Your task to perform on an android device: Open settings on Google Maps Image 0: 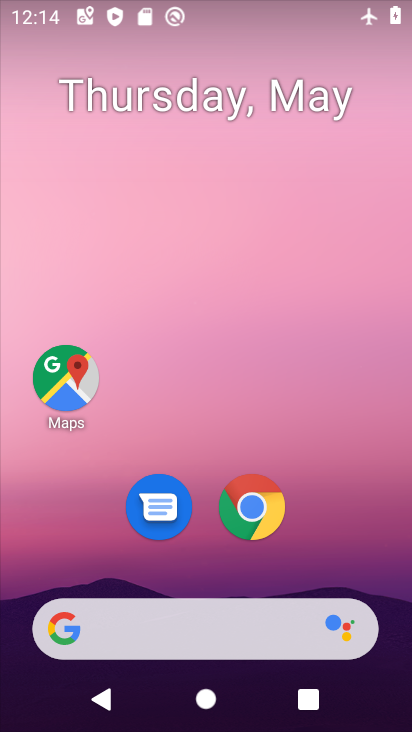
Step 0: click (62, 375)
Your task to perform on an android device: Open settings on Google Maps Image 1: 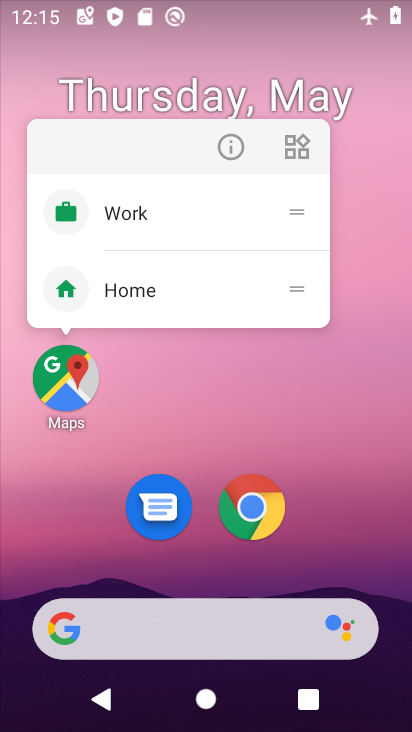
Step 1: click (64, 382)
Your task to perform on an android device: Open settings on Google Maps Image 2: 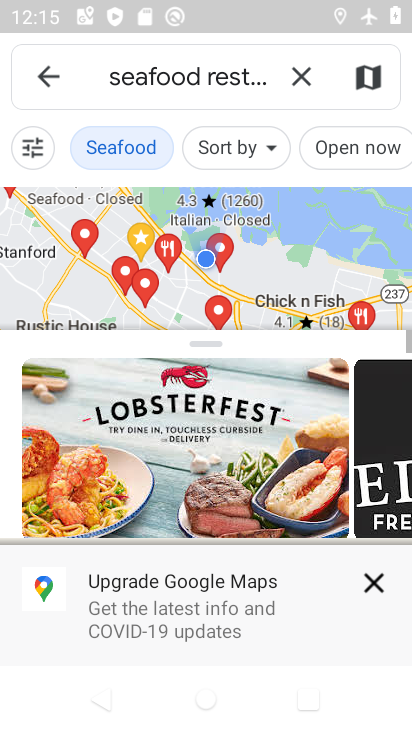
Step 2: click (303, 84)
Your task to perform on an android device: Open settings on Google Maps Image 3: 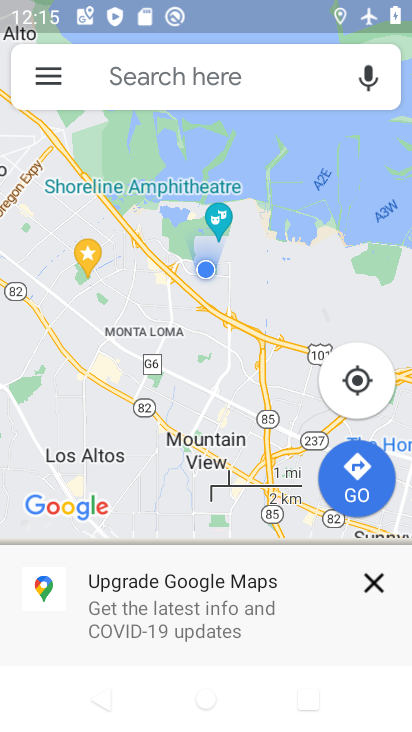
Step 3: click (56, 70)
Your task to perform on an android device: Open settings on Google Maps Image 4: 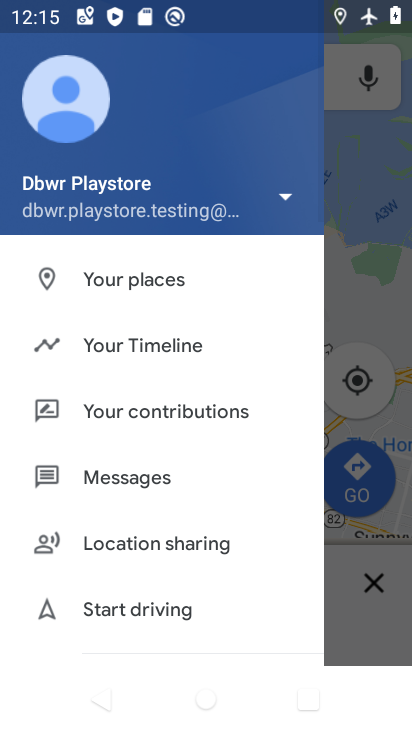
Step 4: drag from (142, 620) to (170, 243)
Your task to perform on an android device: Open settings on Google Maps Image 5: 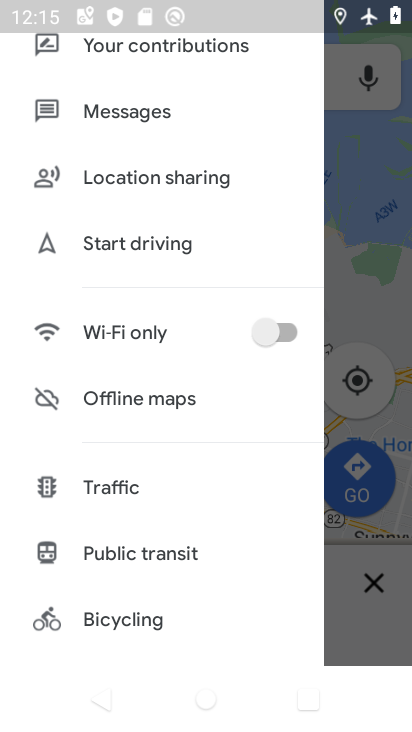
Step 5: drag from (147, 635) to (163, 300)
Your task to perform on an android device: Open settings on Google Maps Image 6: 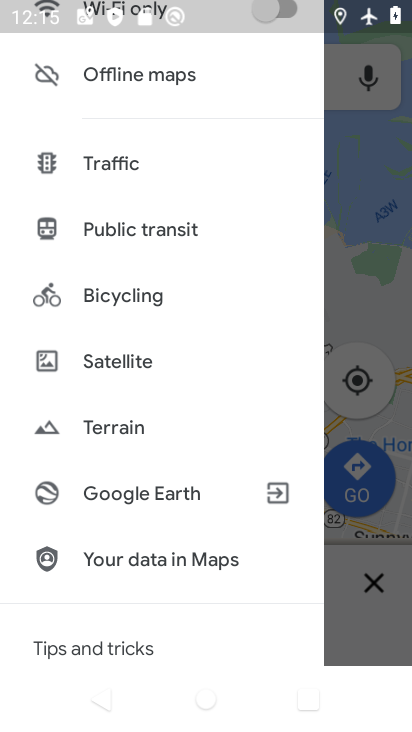
Step 6: drag from (92, 649) to (108, 273)
Your task to perform on an android device: Open settings on Google Maps Image 7: 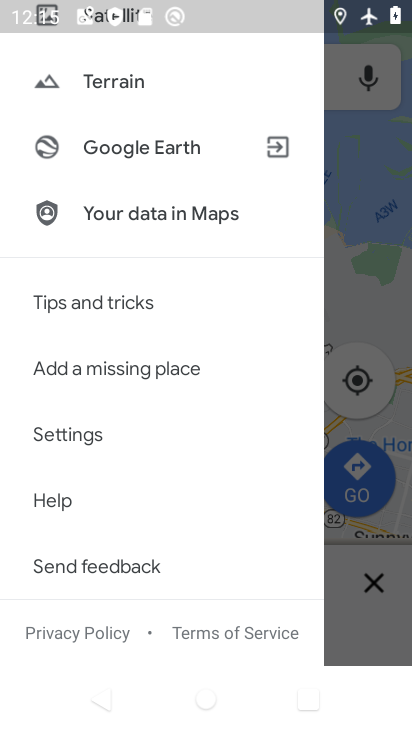
Step 7: click (70, 428)
Your task to perform on an android device: Open settings on Google Maps Image 8: 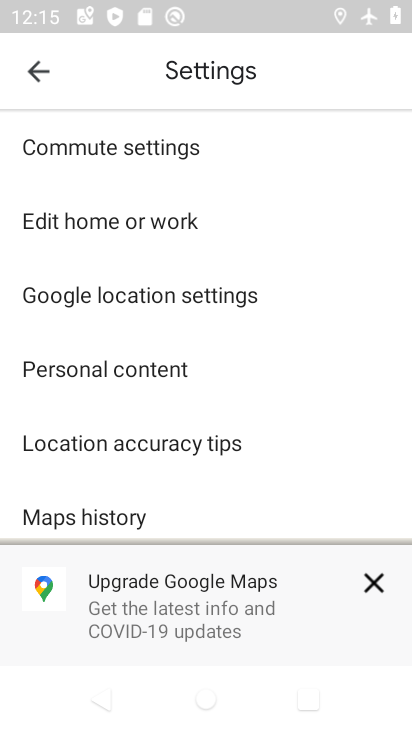
Step 8: click (361, 585)
Your task to perform on an android device: Open settings on Google Maps Image 9: 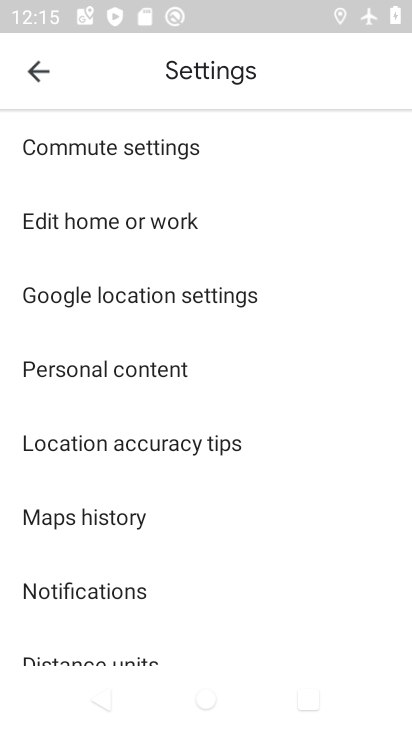
Step 9: task complete